Your task to perform on an android device: turn on showing notifications on the lock screen Image 0: 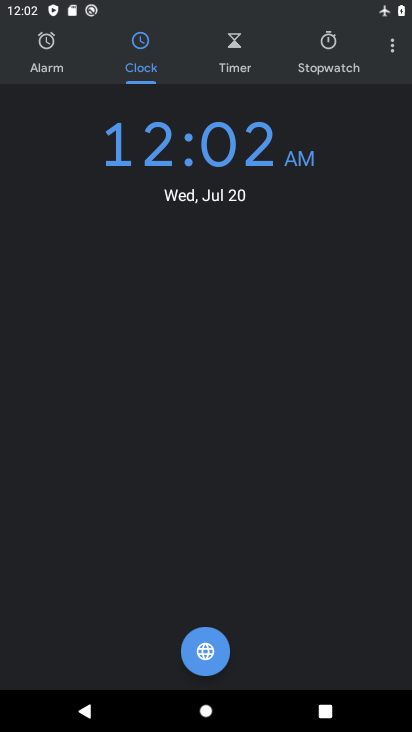
Step 0: press home button
Your task to perform on an android device: turn on showing notifications on the lock screen Image 1: 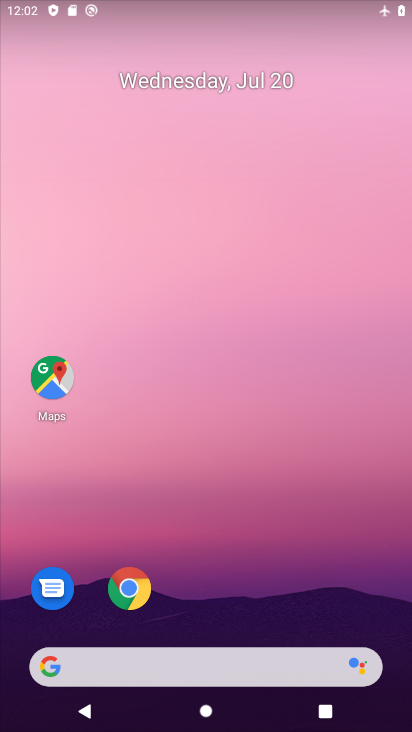
Step 1: drag from (232, 591) to (185, 56)
Your task to perform on an android device: turn on showing notifications on the lock screen Image 2: 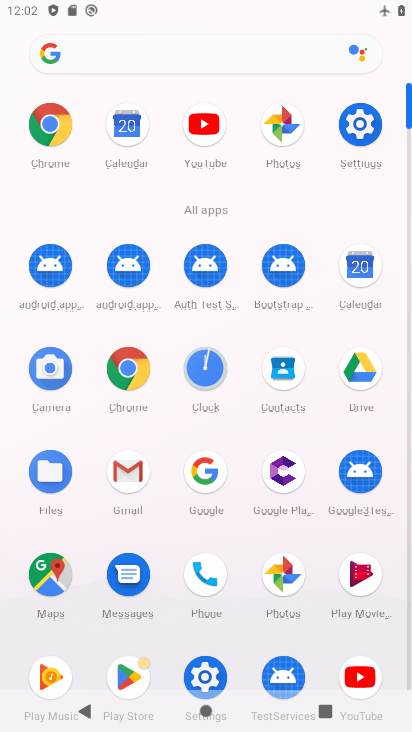
Step 2: click (359, 113)
Your task to perform on an android device: turn on showing notifications on the lock screen Image 3: 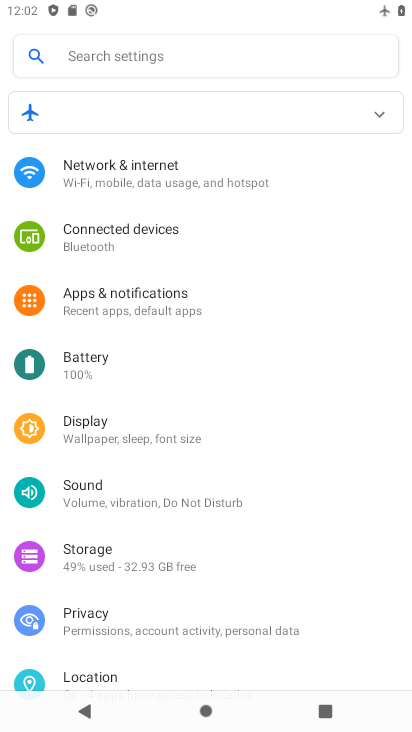
Step 3: click (147, 294)
Your task to perform on an android device: turn on showing notifications on the lock screen Image 4: 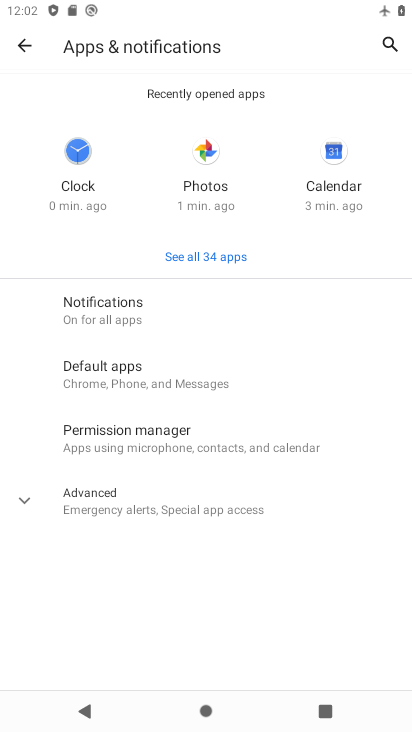
Step 4: click (157, 316)
Your task to perform on an android device: turn on showing notifications on the lock screen Image 5: 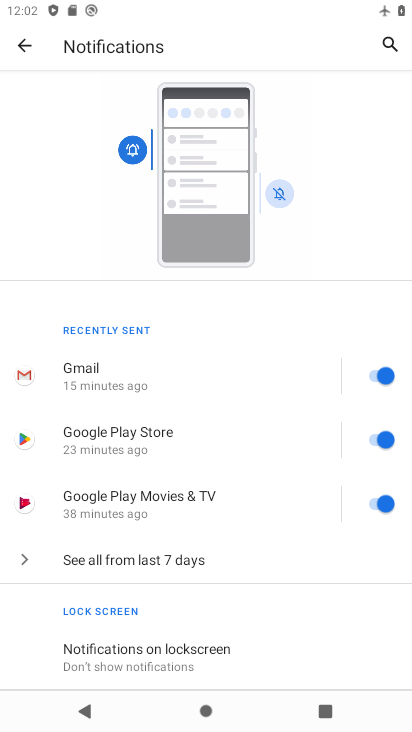
Step 5: click (208, 650)
Your task to perform on an android device: turn on showing notifications on the lock screen Image 6: 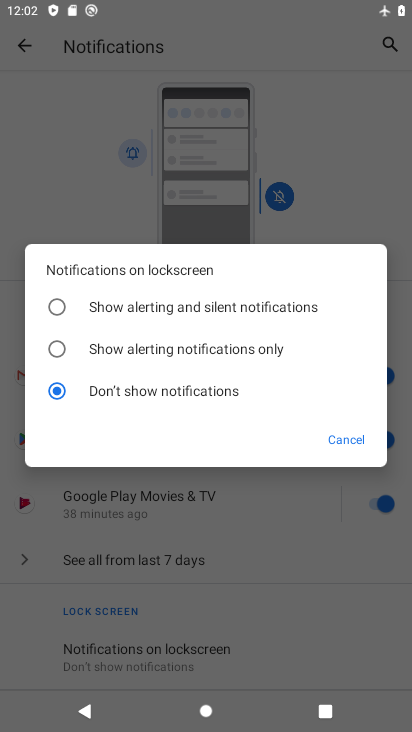
Step 6: click (152, 301)
Your task to perform on an android device: turn on showing notifications on the lock screen Image 7: 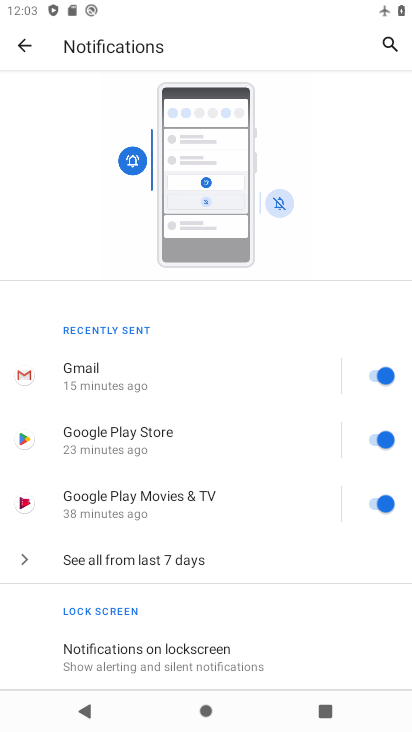
Step 7: task complete